Your task to perform on an android device: Go to CNN.com Image 0: 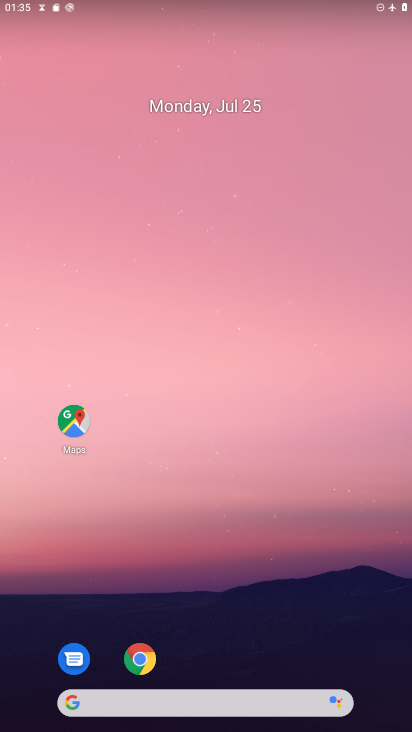
Step 0: drag from (273, 621) to (273, 96)
Your task to perform on an android device: Go to CNN.com Image 1: 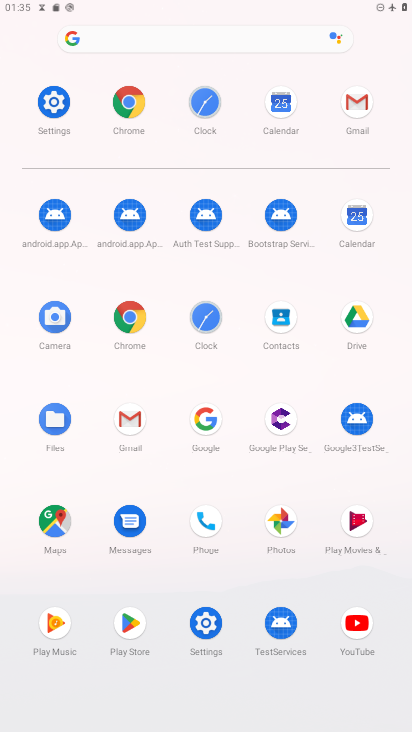
Step 1: click (128, 78)
Your task to perform on an android device: Go to CNN.com Image 2: 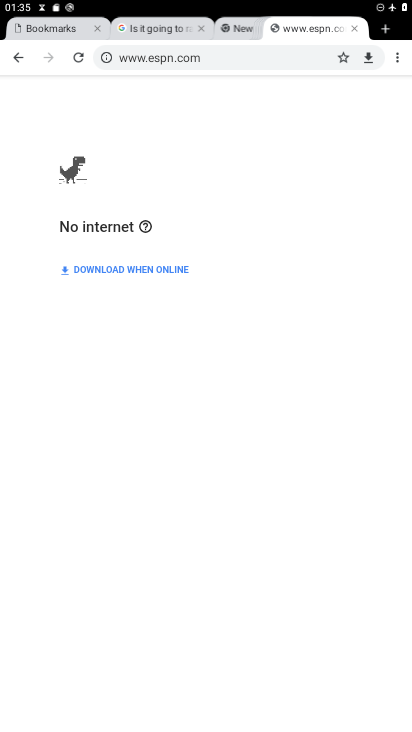
Step 2: click (396, 26)
Your task to perform on an android device: Go to CNN.com Image 3: 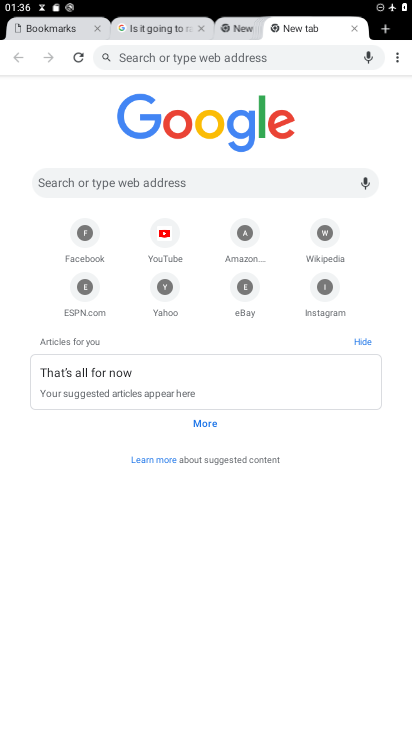
Step 3: click (222, 182)
Your task to perform on an android device: Go to CNN.com Image 4: 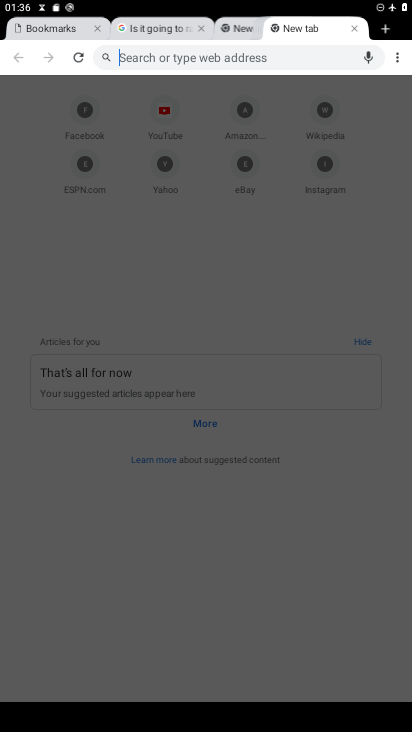
Step 4: type "CNN.com "
Your task to perform on an android device: Go to CNN.com Image 5: 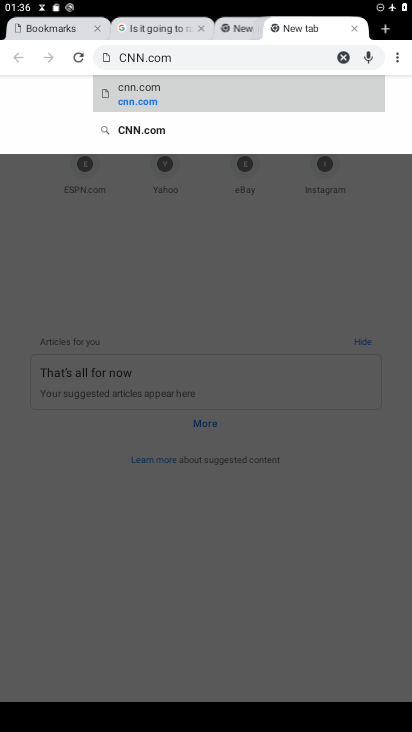
Step 5: click (174, 82)
Your task to perform on an android device: Go to CNN.com Image 6: 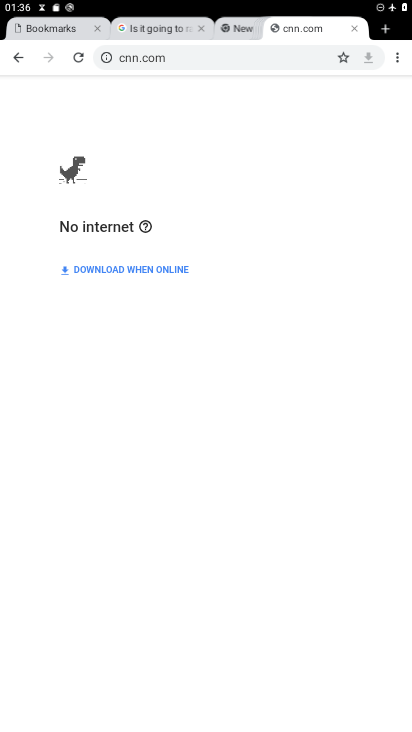
Step 6: task complete